Your task to perform on an android device: open chrome and create a bookmark for the current page Image 0: 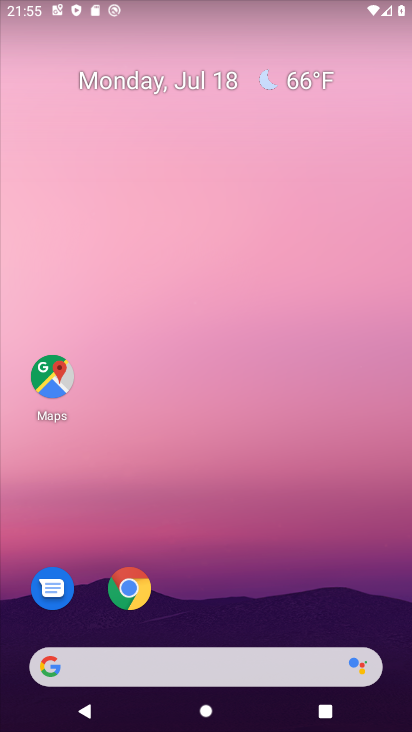
Step 0: press home button
Your task to perform on an android device: open chrome and create a bookmark for the current page Image 1: 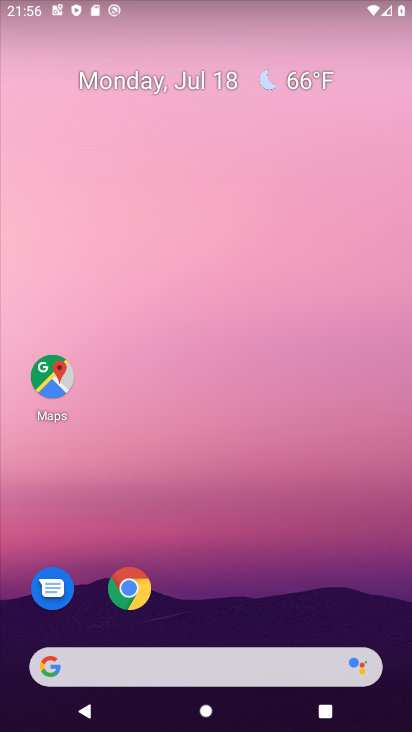
Step 1: click (131, 588)
Your task to perform on an android device: open chrome and create a bookmark for the current page Image 2: 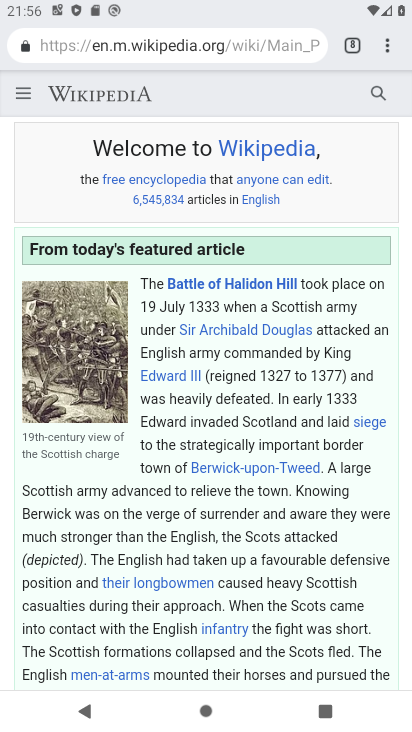
Step 2: click (388, 57)
Your task to perform on an android device: open chrome and create a bookmark for the current page Image 3: 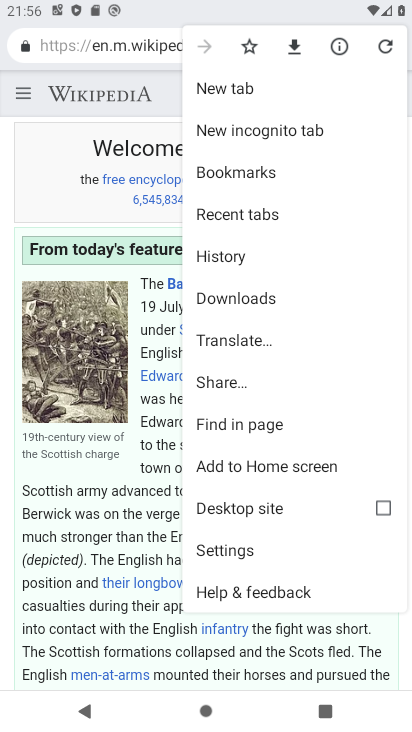
Step 3: click (249, 47)
Your task to perform on an android device: open chrome and create a bookmark for the current page Image 4: 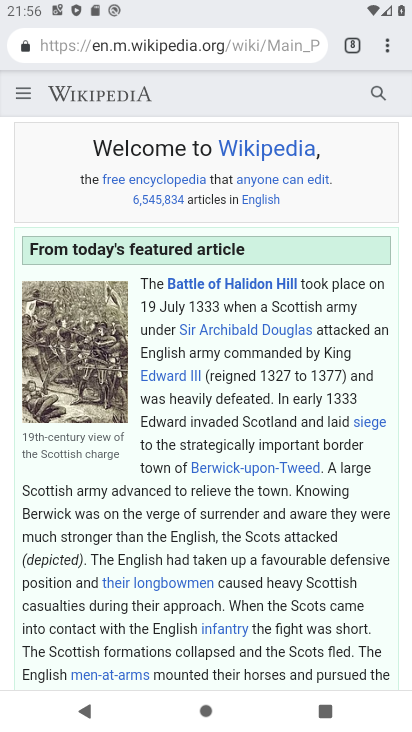
Step 4: task complete